Your task to perform on an android device: turn off airplane mode Image 0: 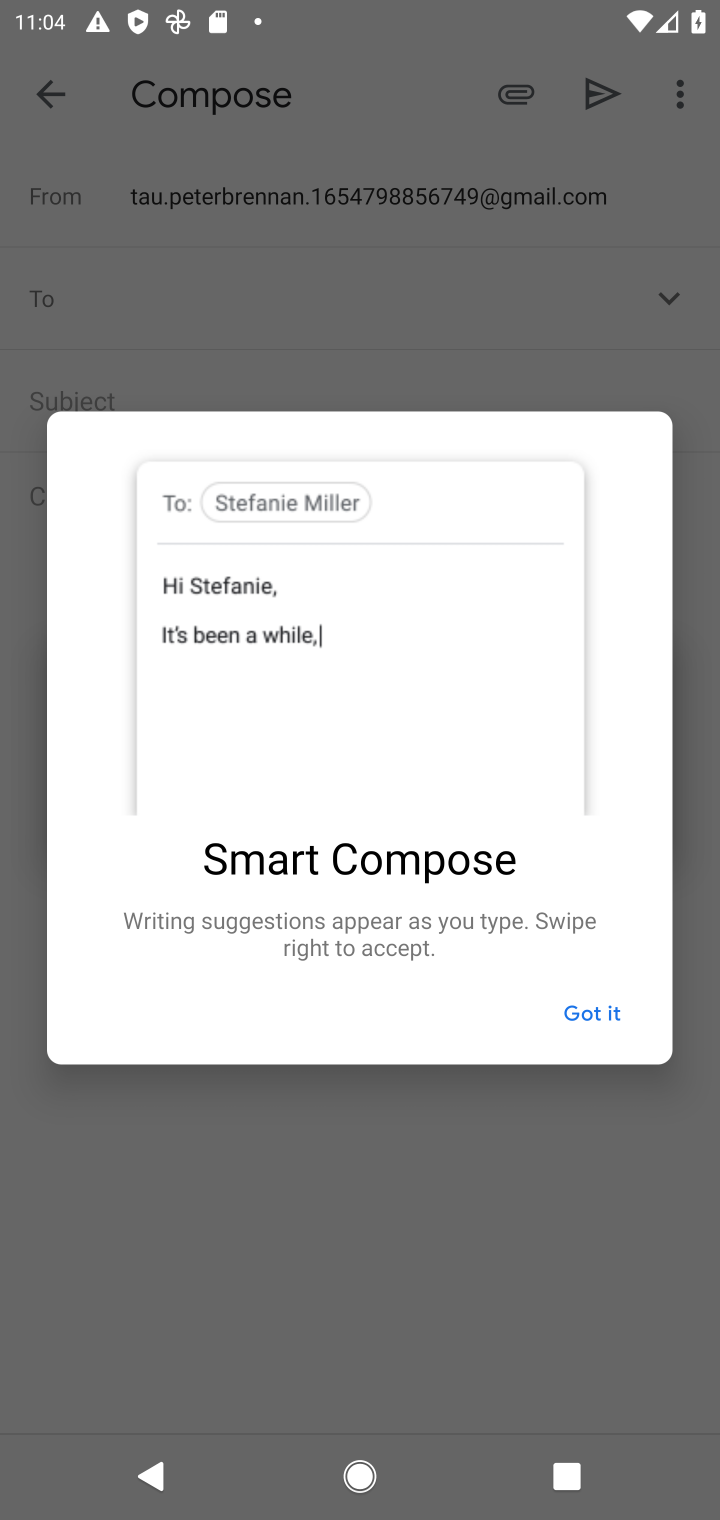
Step 0: press home button
Your task to perform on an android device: turn off airplane mode Image 1: 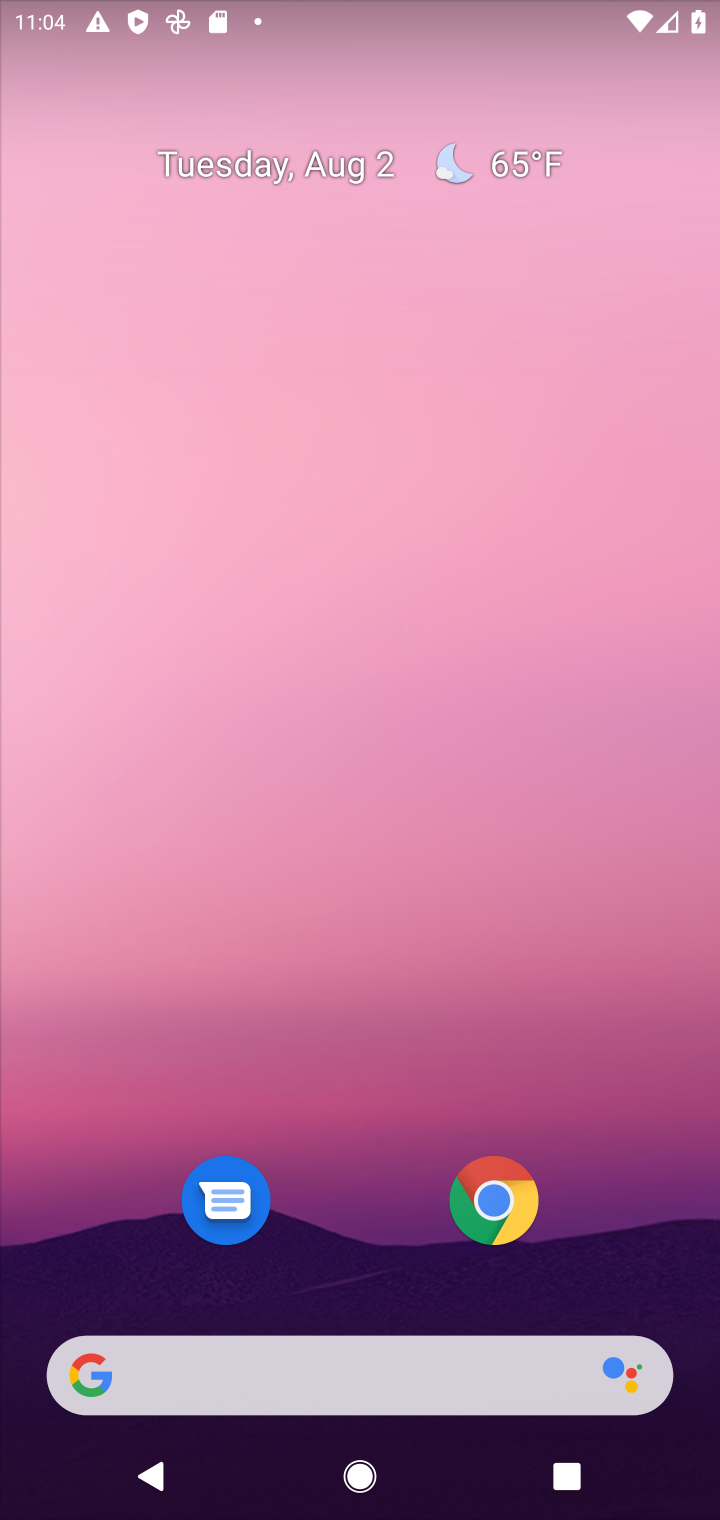
Step 1: drag from (670, 1287) to (571, 163)
Your task to perform on an android device: turn off airplane mode Image 2: 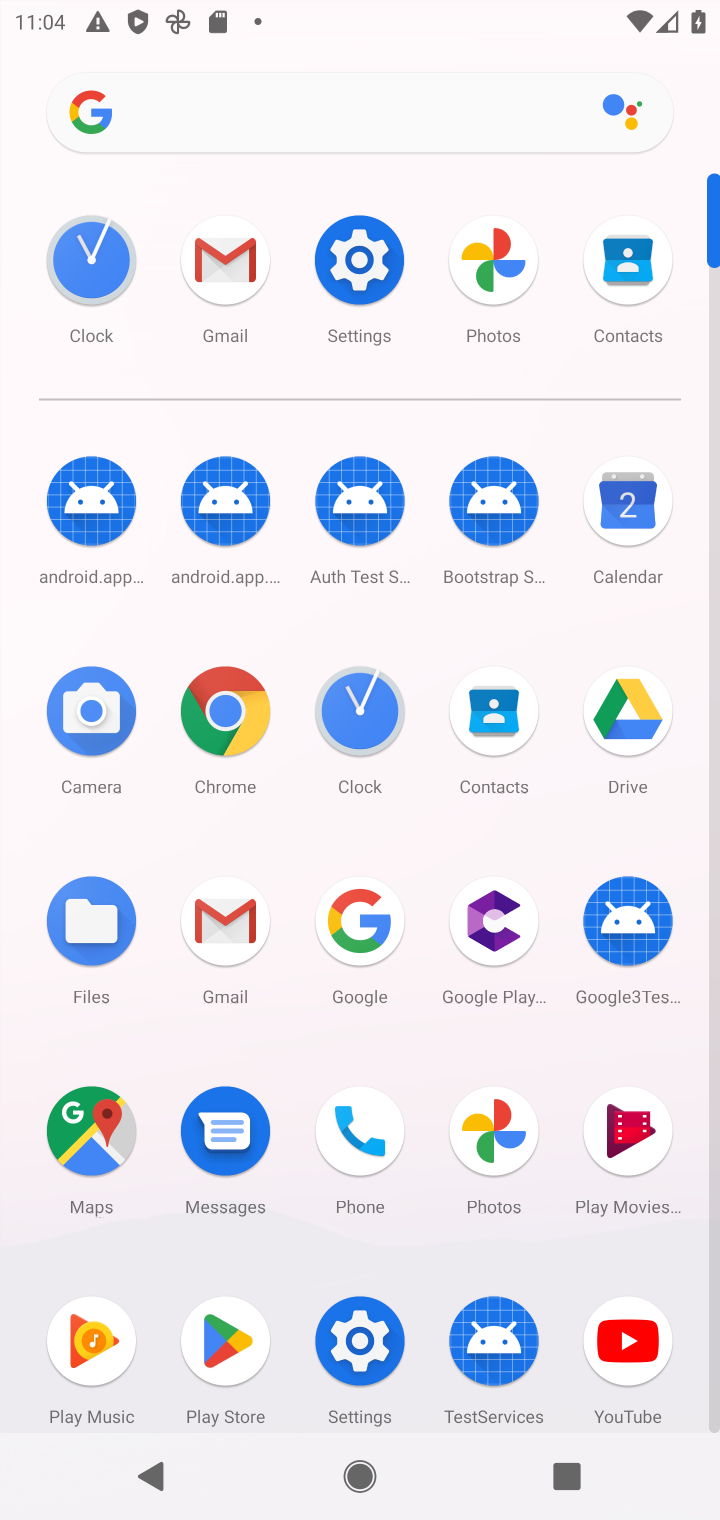
Step 2: click (364, 1344)
Your task to perform on an android device: turn off airplane mode Image 3: 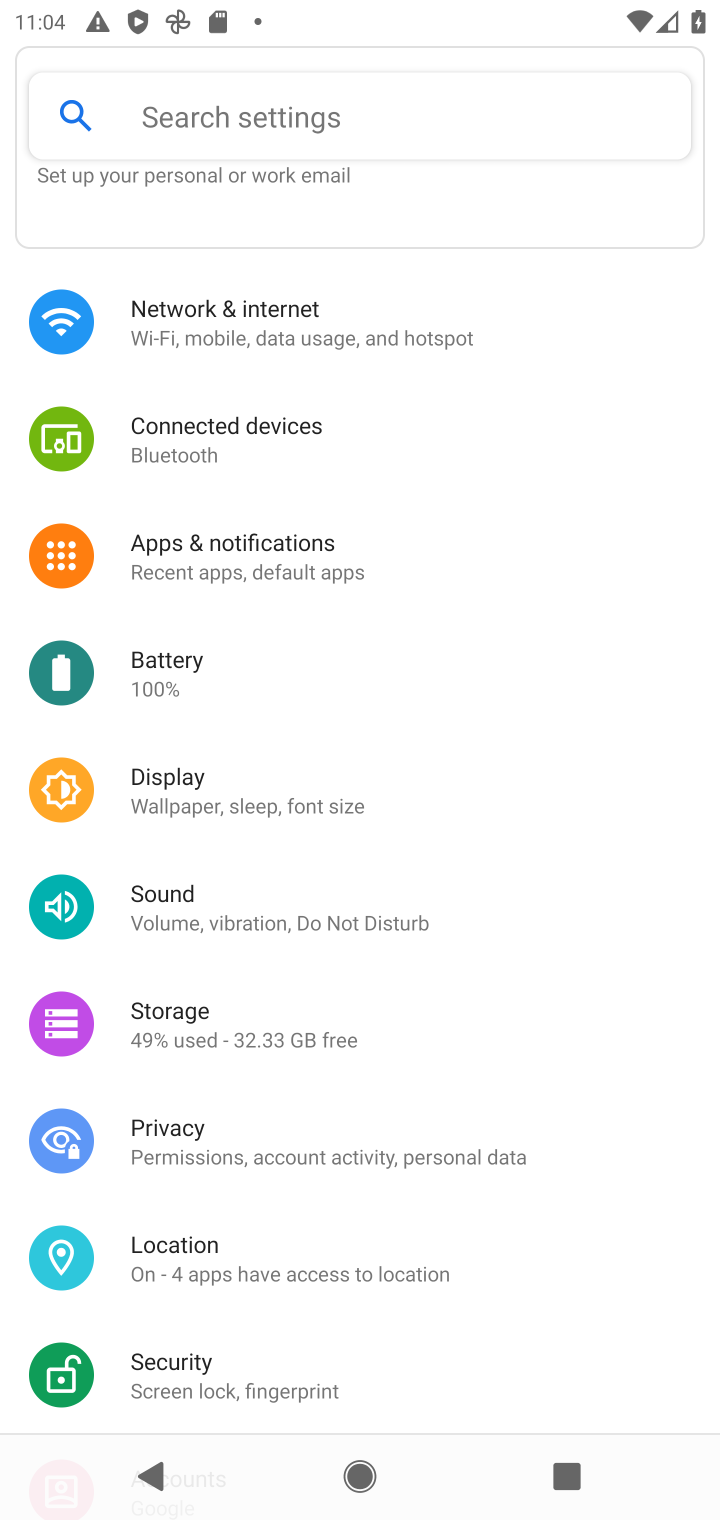
Step 3: click (199, 318)
Your task to perform on an android device: turn off airplane mode Image 4: 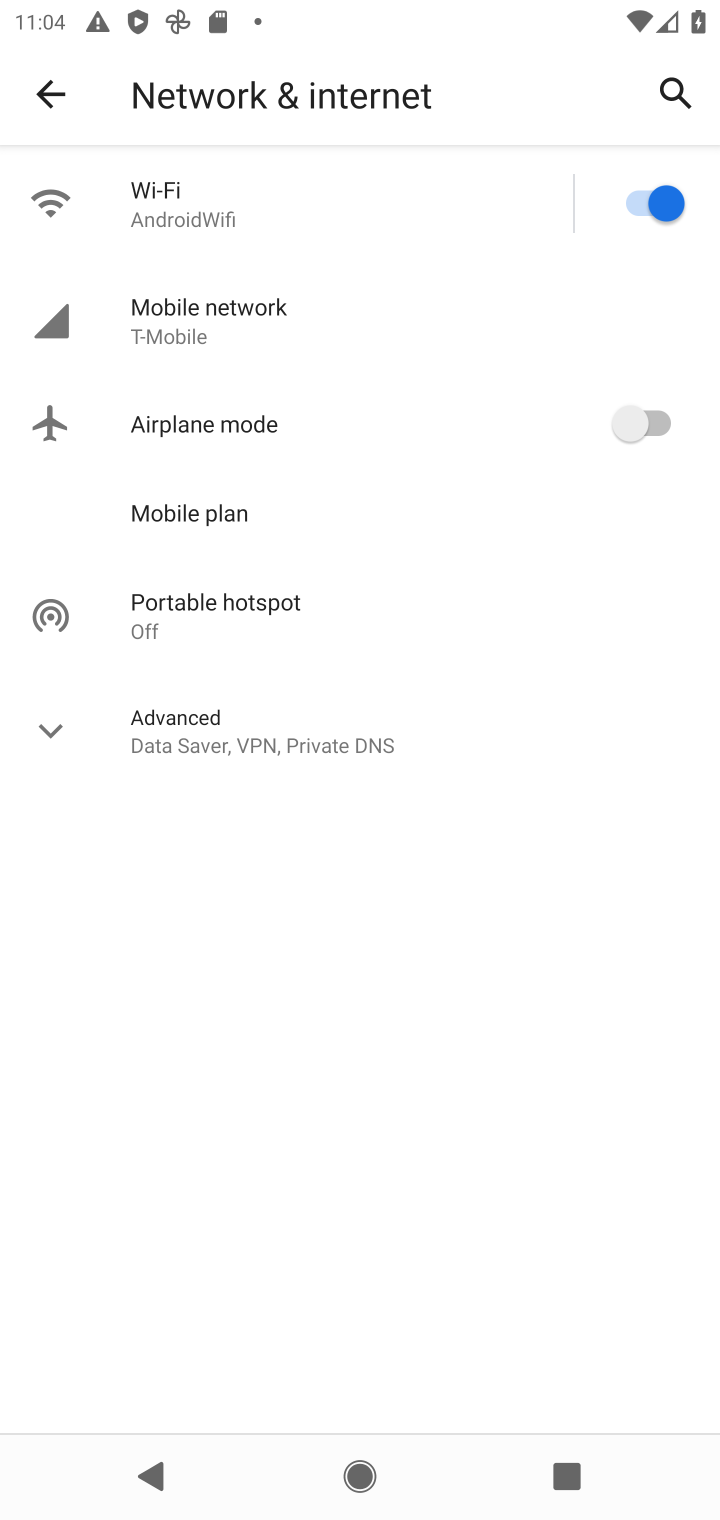
Step 4: task complete